Your task to perform on an android device: Open the web browser Image 0: 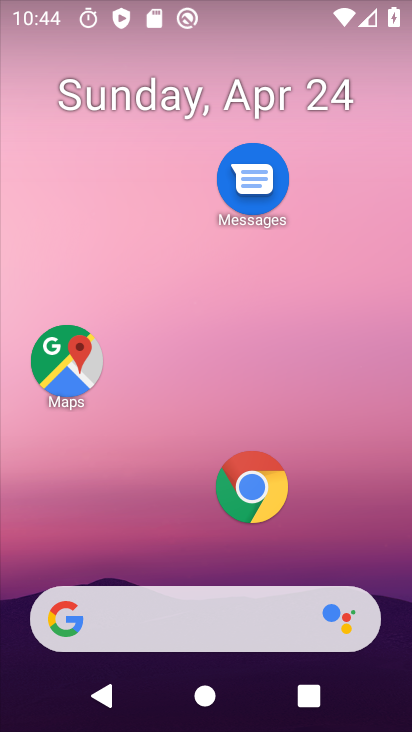
Step 0: click (250, 466)
Your task to perform on an android device: Open the web browser Image 1: 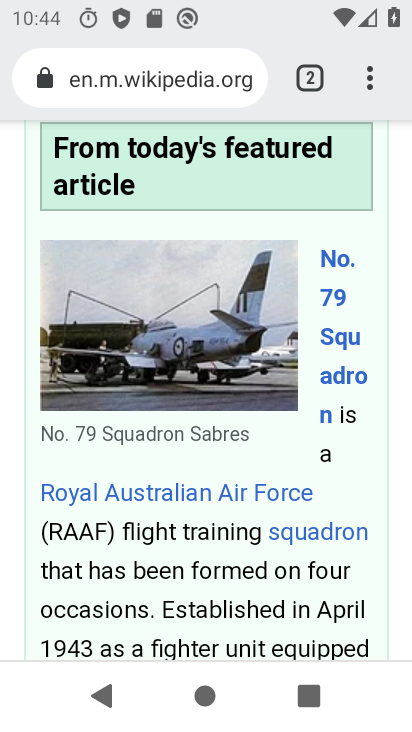
Step 1: task complete